Your task to perform on an android device: open a bookmark in the chrome app Image 0: 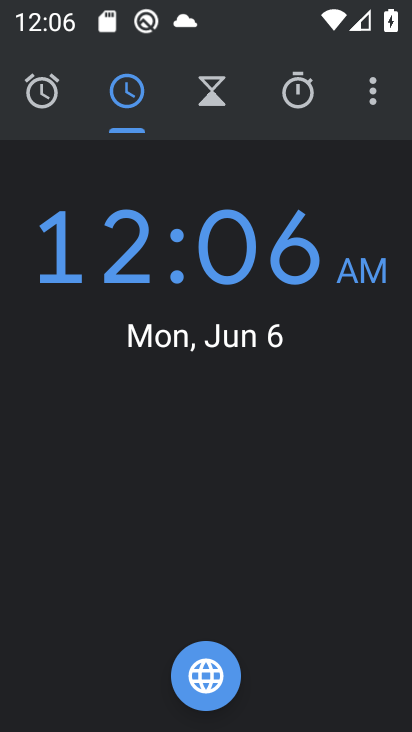
Step 0: press home button
Your task to perform on an android device: open a bookmark in the chrome app Image 1: 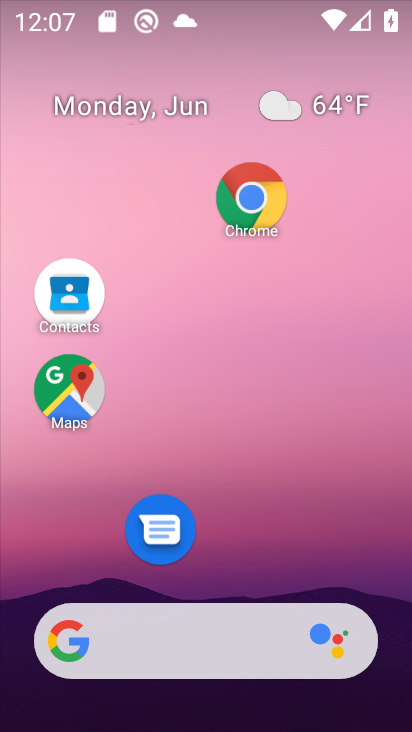
Step 1: click (249, 193)
Your task to perform on an android device: open a bookmark in the chrome app Image 2: 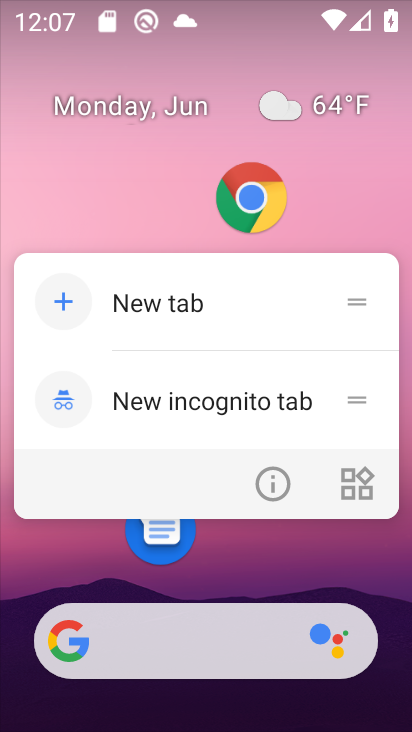
Step 2: click (262, 197)
Your task to perform on an android device: open a bookmark in the chrome app Image 3: 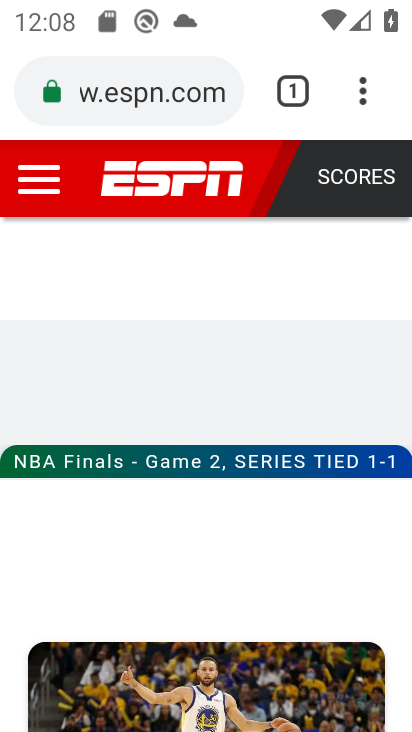
Step 3: click (373, 69)
Your task to perform on an android device: open a bookmark in the chrome app Image 4: 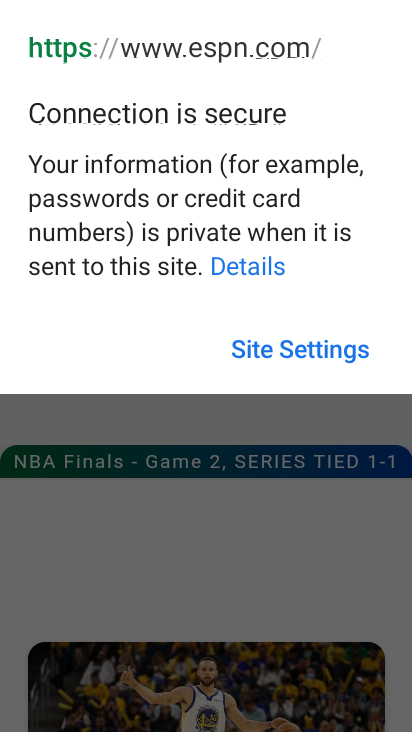
Step 4: click (323, 451)
Your task to perform on an android device: open a bookmark in the chrome app Image 5: 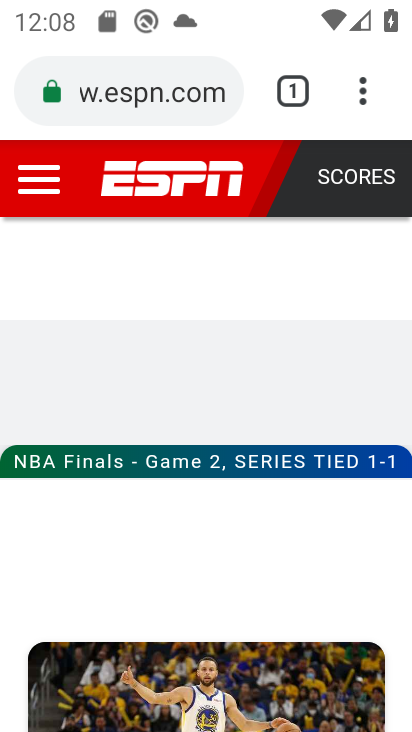
Step 5: click (365, 92)
Your task to perform on an android device: open a bookmark in the chrome app Image 6: 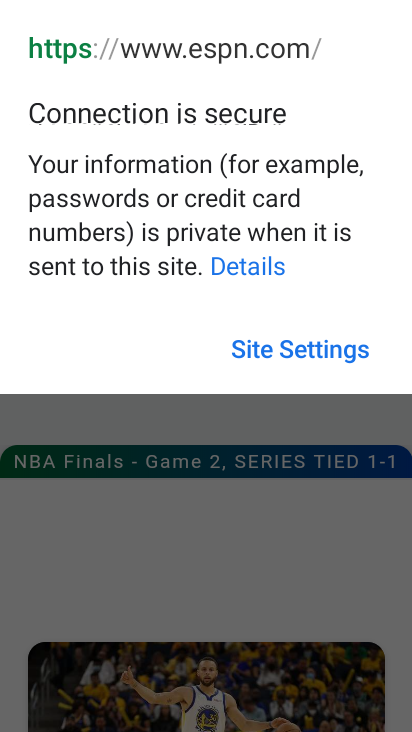
Step 6: click (300, 429)
Your task to perform on an android device: open a bookmark in the chrome app Image 7: 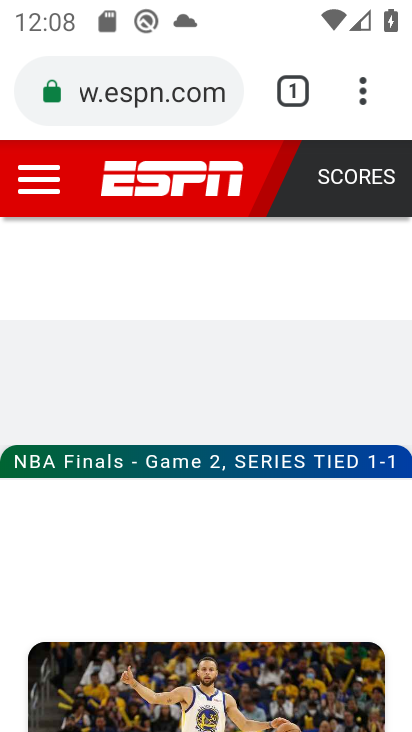
Step 7: click (396, 97)
Your task to perform on an android device: open a bookmark in the chrome app Image 8: 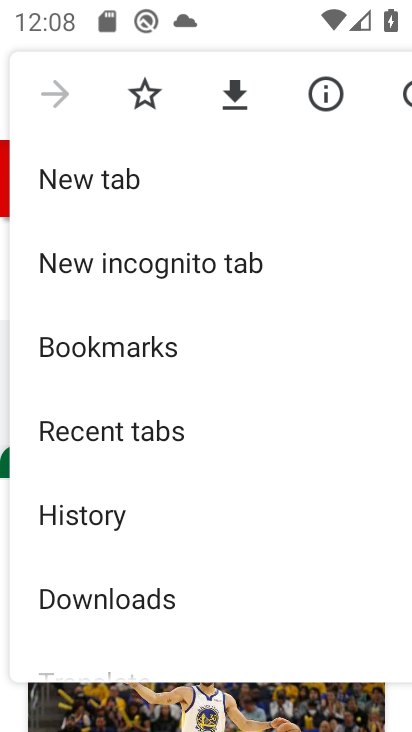
Step 8: click (128, 325)
Your task to perform on an android device: open a bookmark in the chrome app Image 9: 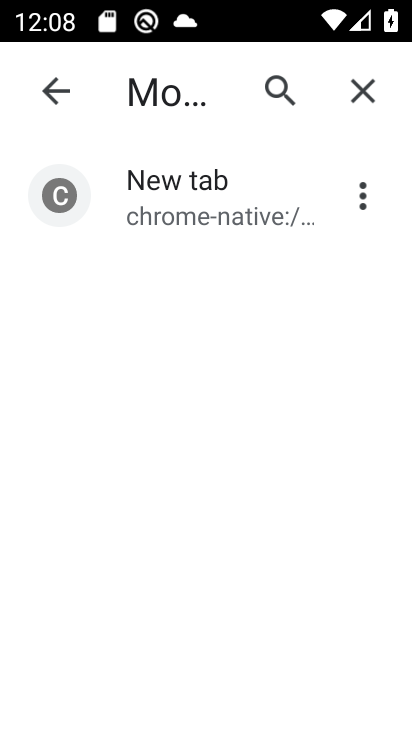
Step 9: click (238, 226)
Your task to perform on an android device: open a bookmark in the chrome app Image 10: 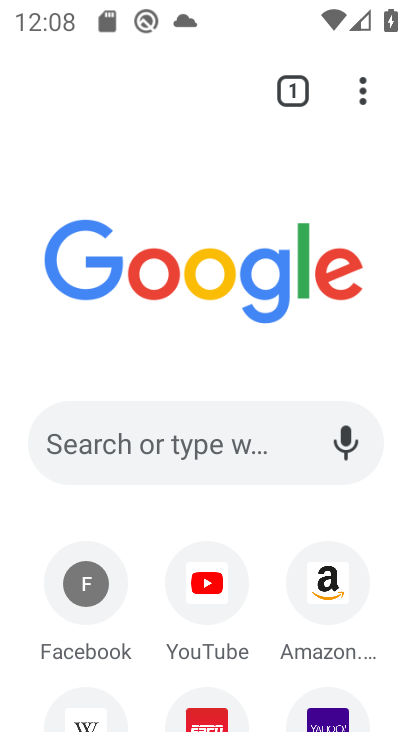
Step 10: task complete